Your task to perform on an android device: add a contact Image 0: 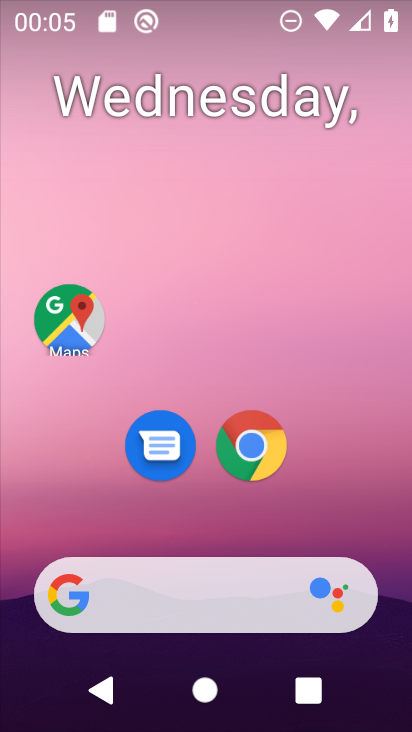
Step 0: drag from (205, 544) to (342, 50)
Your task to perform on an android device: add a contact Image 1: 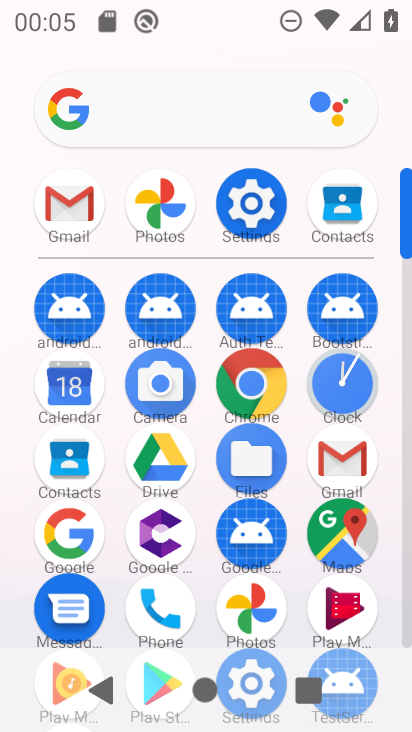
Step 1: click (73, 462)
Your task to perform on an android device: add a contact Image 2: 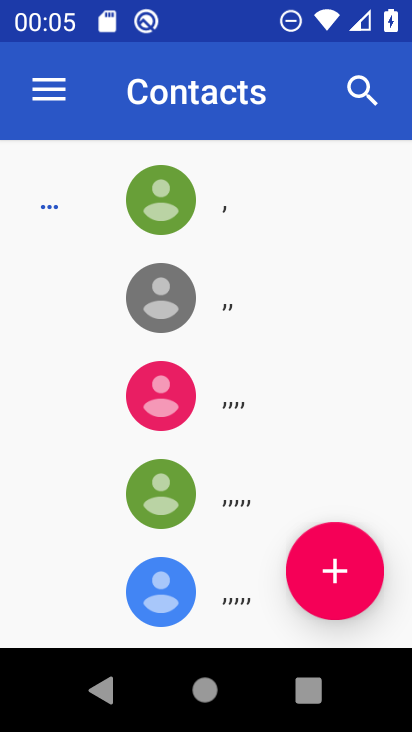
Step 2: click (328, 567)
Your task to perform on an android device: add a contact Image 3: 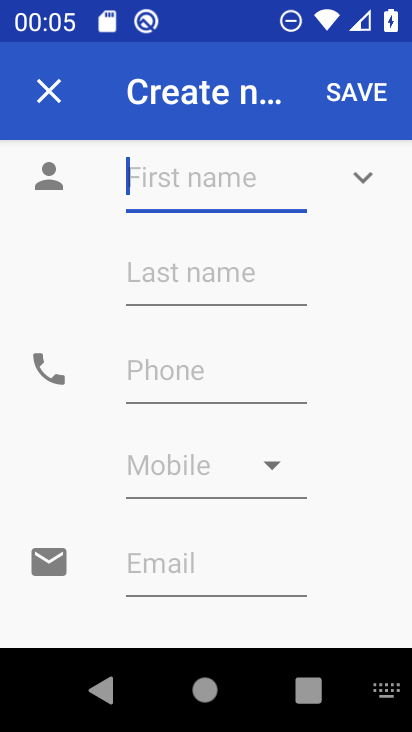
Step 3: type "plmnkoijbhuygvcftrdxzsewaq"
Your task to perform on an android device: add a contact Image 4: 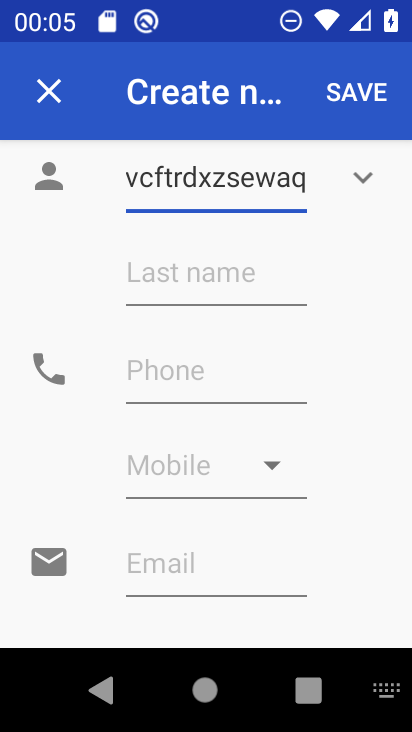
Step 4: click (225, 397)
Your task to perform on an android device: add a contact Image 5: 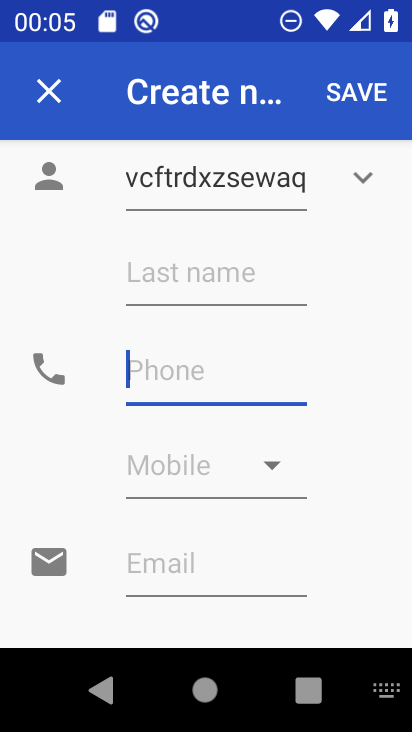
Step 5: type "01123456789"
Your task to perform on an android device: add a contact Image 6: 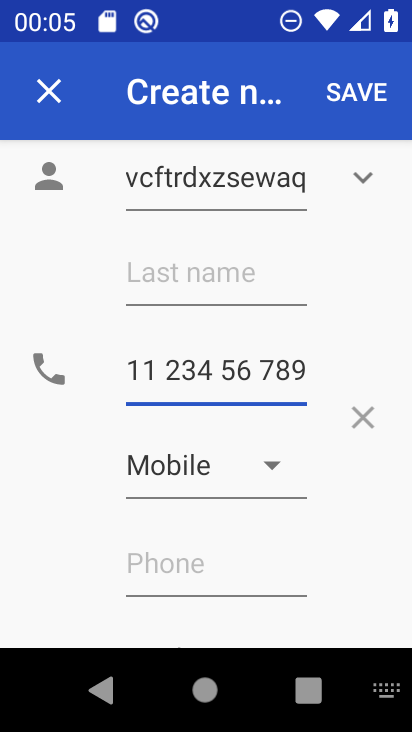
Step 6: click (343, 87)
Your task to perform on an android device: add a contact Image 7: 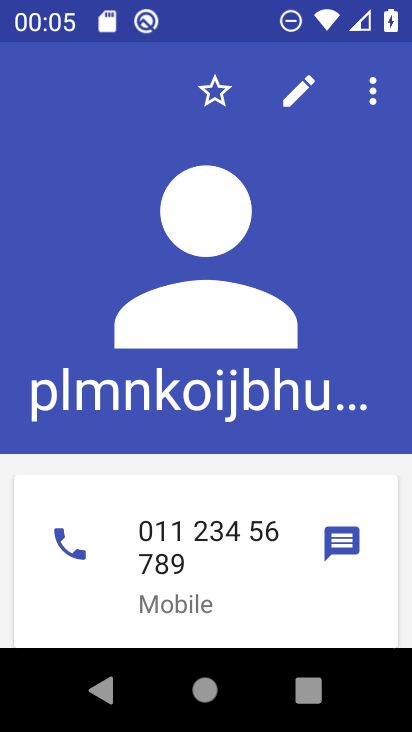
Step 7: task complete